Your task to perform on an android device: turn on priority inbox in the gmail app Image 0: 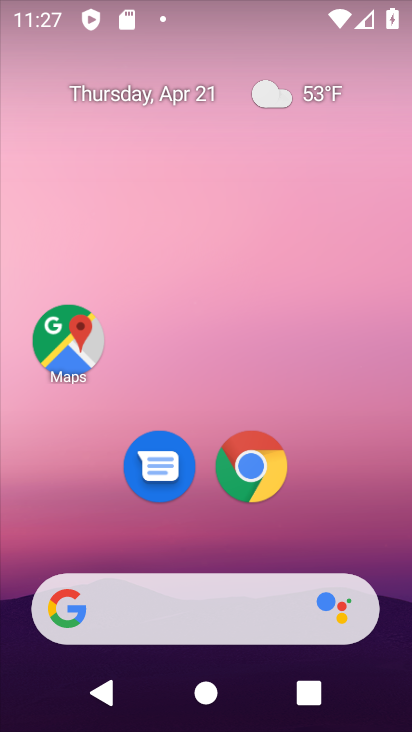
Step 0: drag from (339, 507) to (258, 48)
Your task to perform on an android device: turn on priority inbox in the gmail app Image 1: 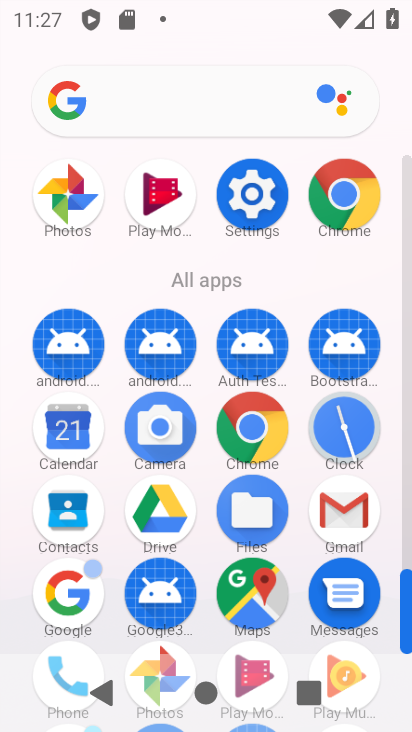
Step 1: drag from (1, 566) to (15, 237)
Your task to perform on an android device: turn on priority inbox in the gmail app Image 2: 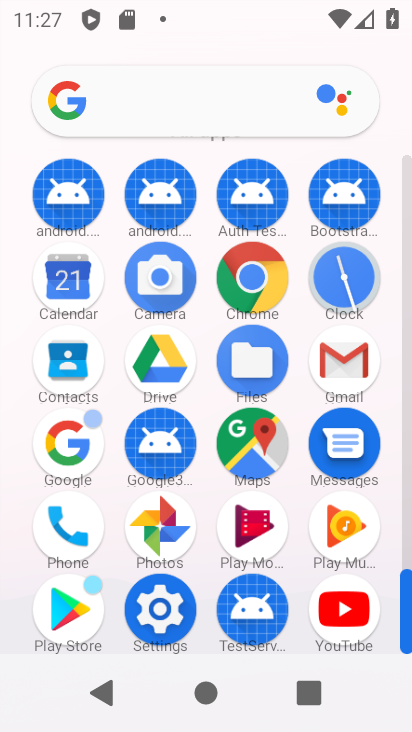
Step 2: click (345, 355)
Your task to perform on an android device: turn on priority inbox in the gmail app Image 3: 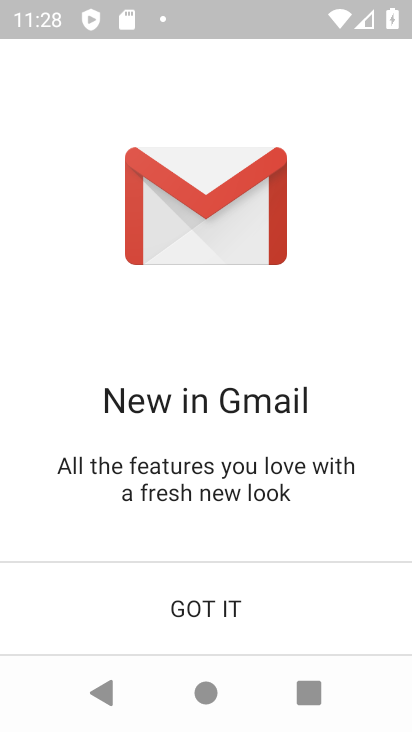
Step 3: click (220, 596)
Your task to perform on an android device: turn on priority inbox in the gmail app Image 4: 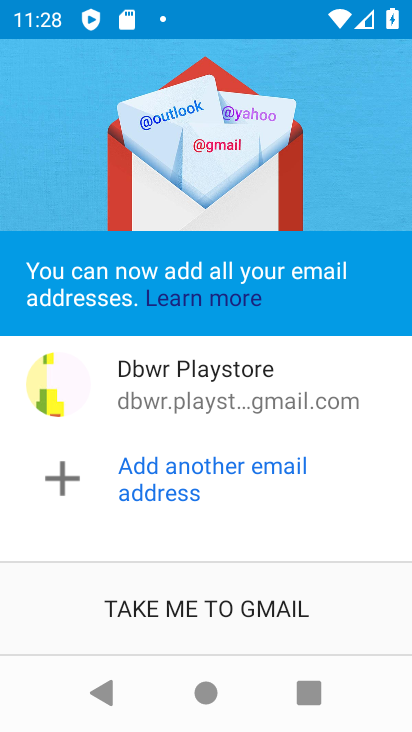
Step 4: click (220, 596)
Your task to perform on an android device: turn on priority inbox in the gmail app Image 5: 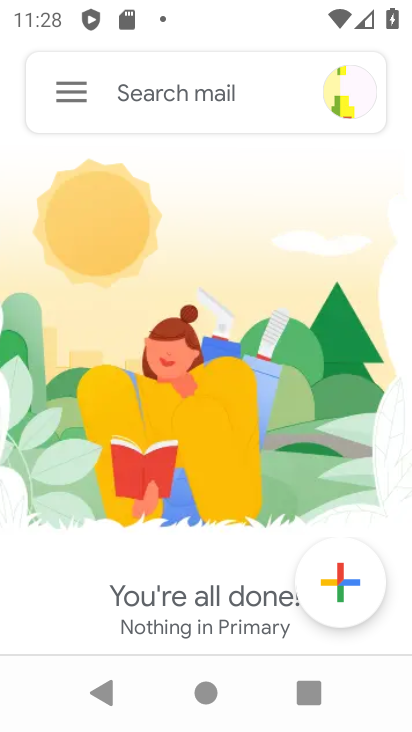
Step 5: click (66, 92)
Your task to perform on an android device: turn on priority inbox in the gmail app Image 6: 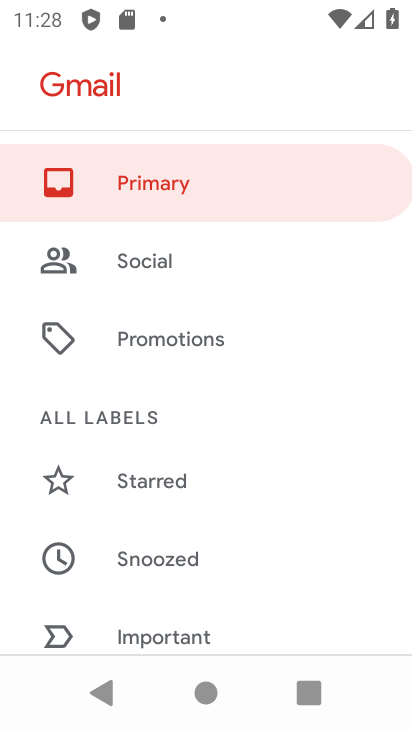
Step 6: drag from (299, 552) to (307, 157)
Your task to perform on an android device: turn on priority inbox in the gmail app Image 7: 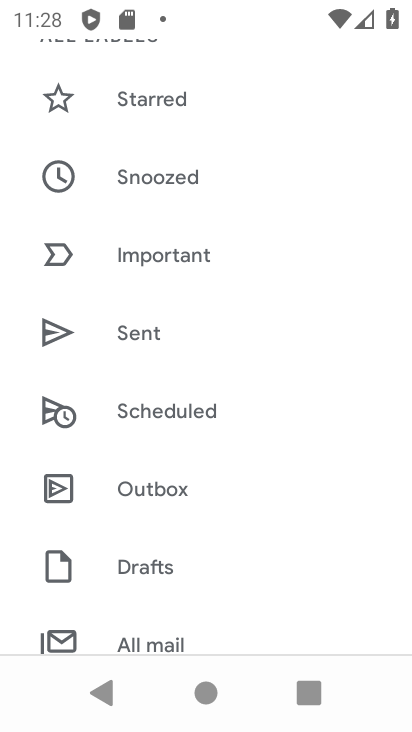
Step 7: drag from (301, 510) to (282, 139)
Your task to perform on an android device: turn on priority inbox in the gmail app Image 8: 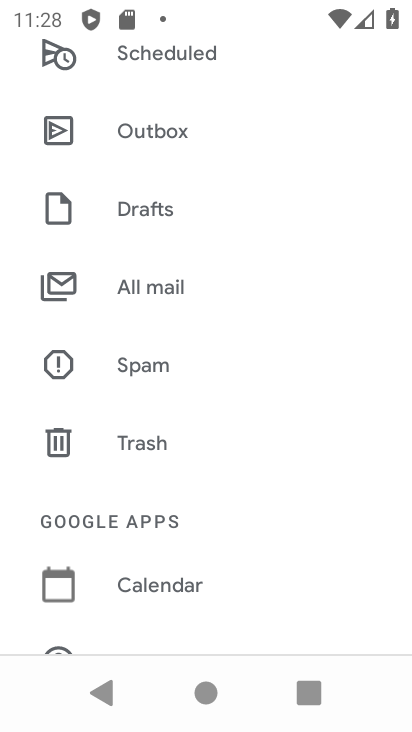
Step 8: drag from (246, 557) to (250, 130)
Your task to perform on an android device: turn on priority inbox in the gmail app Image 9: 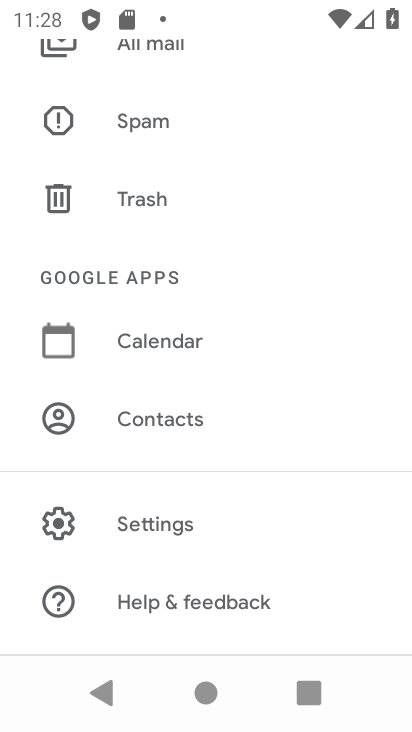
Step 9: click (168, 520)
Your task to perform on an android device: turn on priority inbox in the gmail app Image 10: 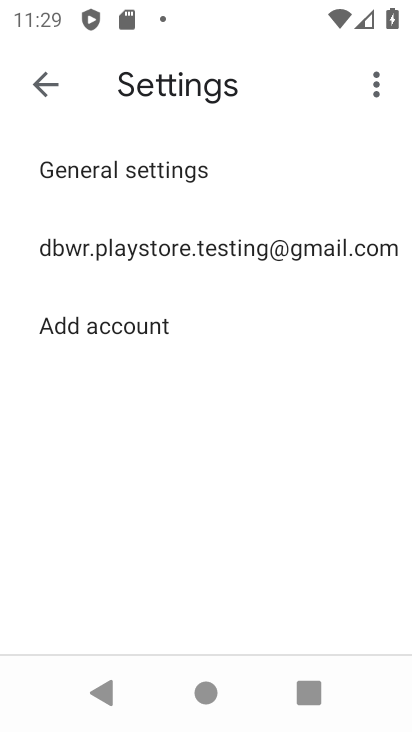
Step 10: click (203, 230)
Your task to perform on an android device: turn on priority inbox in the gmail app Image 11: 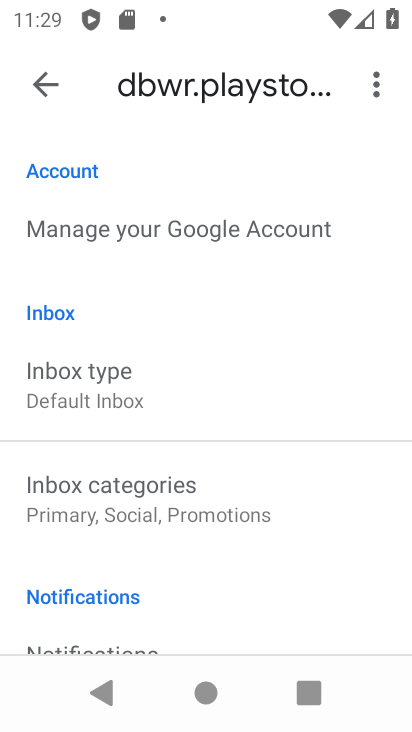
Step 11: drag from (235, 476) to (269, 206)
Your task to perform on an android device: turn on priority inbox in the gmail app Image 12: 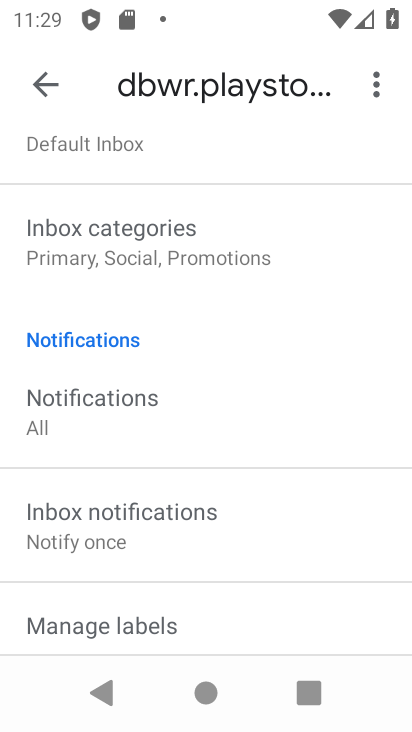
Step 12: drag from (229, 538) to (229, 260)
Your task to perform on an android device: turn on priority inbox in the gmail app Image 13: 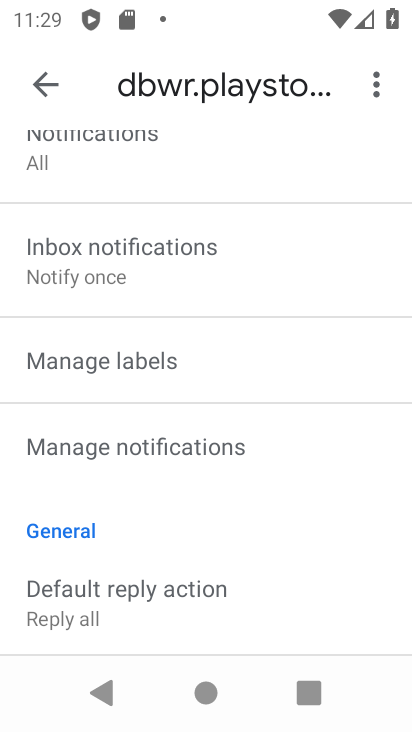
Step 13: drag from (240, 564) to (249, 199)
Your task to perform on an android device: turn on priority inbox in the gmail app Image 14: 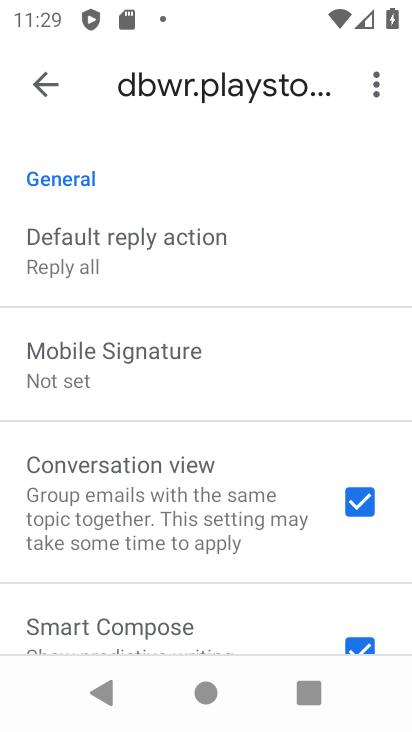
Step 14: drag from (189, 522) to (217, 202)
Your task to perform on an android device: turn on priority inbox in the gmail app Image 15: 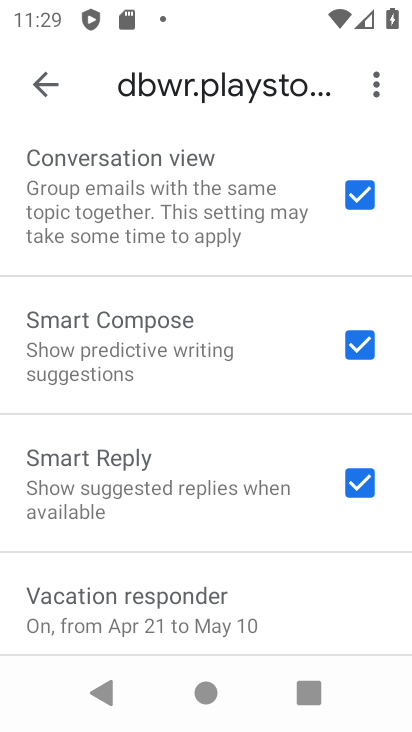
Step 15: drag from (246, 162) to (242, 629)
Your task to perform on an android device: turn on priority inbox in the gmail app Image 16: 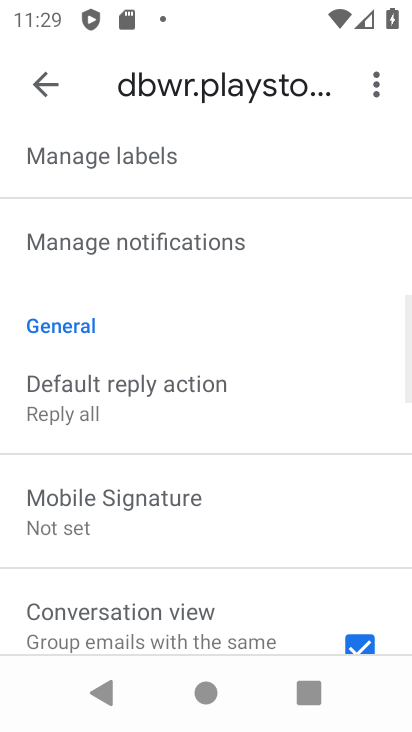
Step 16: drag from (245, 268) to (227, 548)
Your task to perform on an android device: turn on priority inbox in the gmail app Image 17: 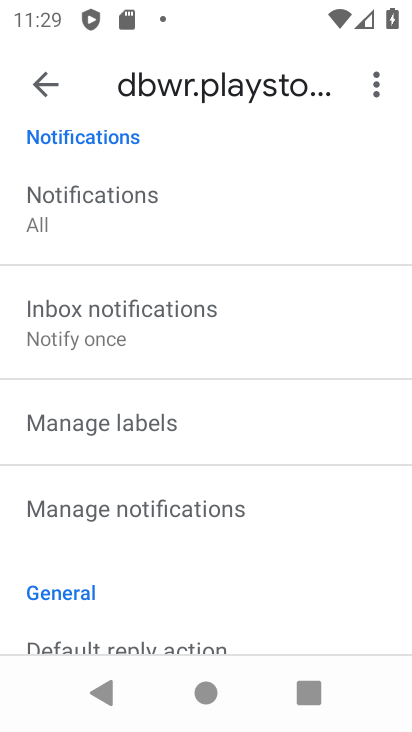
Step 17: drag from (222, 242) to (225, 485)
Your task to perform on an android device: turn on priority inbox in the gmail app Image 18: 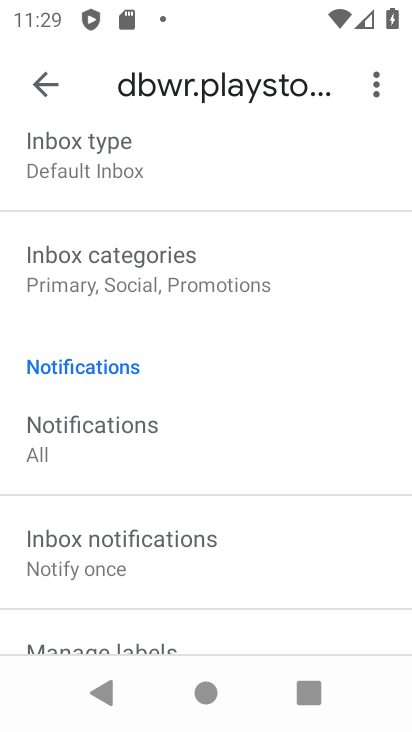
Step 18: drag from (241, 211) to (241, 536)
Your task to perform on an android device: turn on priority inbox in the gmail app Image 19: 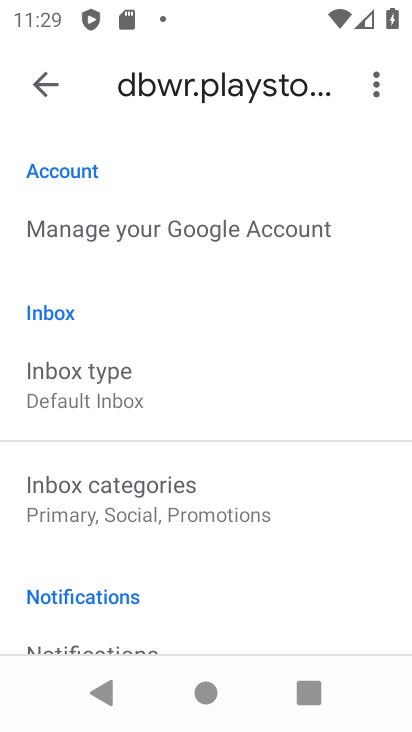
Step 19: click (129, 389)
Your task to perform on an android device: turn on priority inbox in the gmail app Image 20: 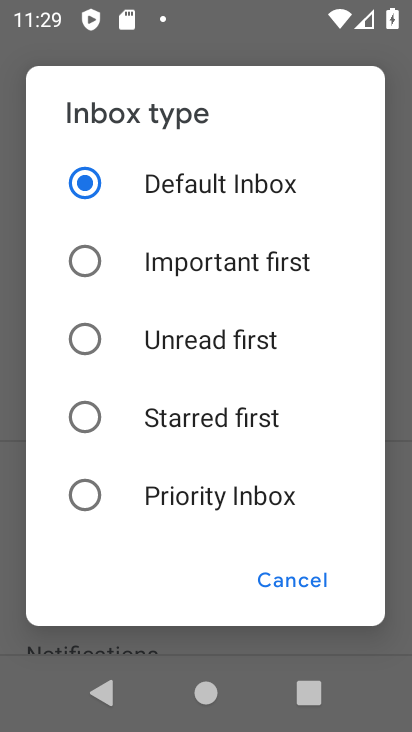
Step 20: click (159, 482)
Your task to perform on an android device: turn on priority inbox in the gmail app Image 21: 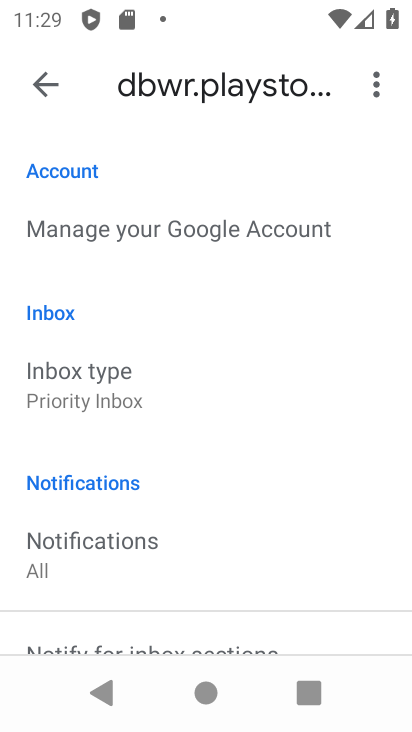
Step 21: task complete